Your task to perform on an android device: change text size in settings app Image 0: 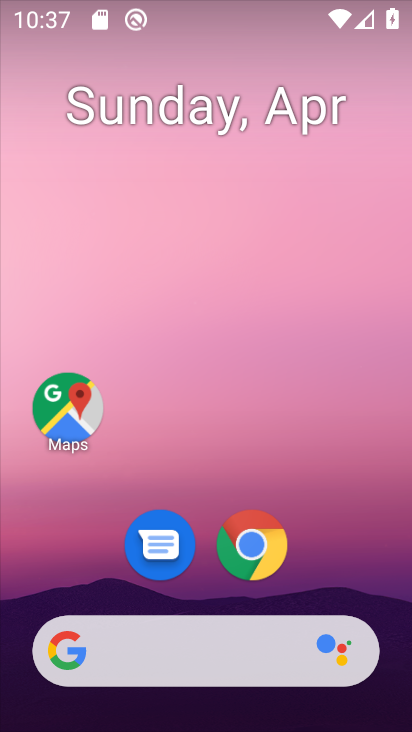
Step 0: drag from (284, 678) to (234, 242)
Your task to perform on an android device: change text size in settings app Image 1: 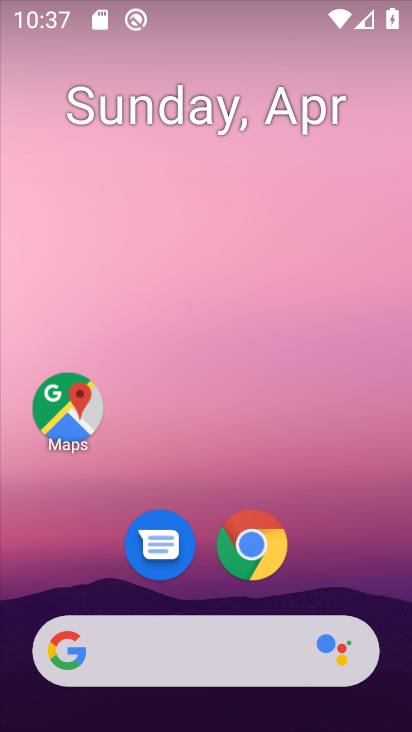
Step 1: drag from (236, 676) to (324, 74)
Your task to perform on an android device: change text size in settings app Image 2: 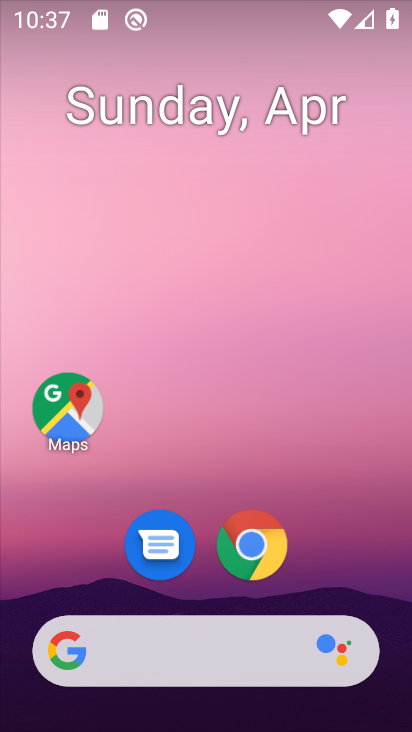
Step 2: drag from (255, 645) to (186, 104)
Your task to perform on an android device: change text size in settings app Image 3: 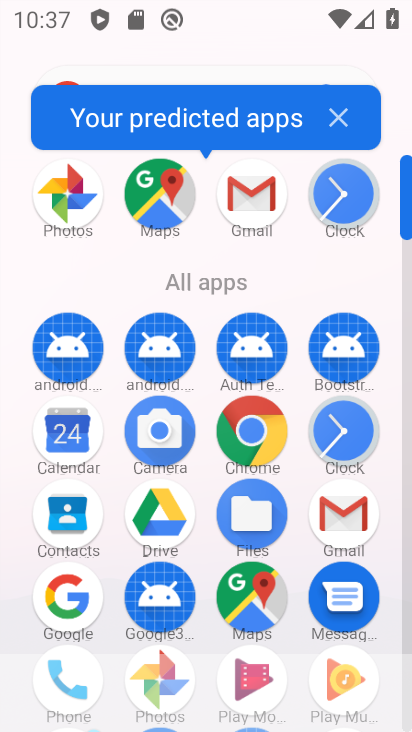
Step 3: drag from (190, 483) to (237, 317)
Your task to perform on an android device: change text size in settings app Image 4: 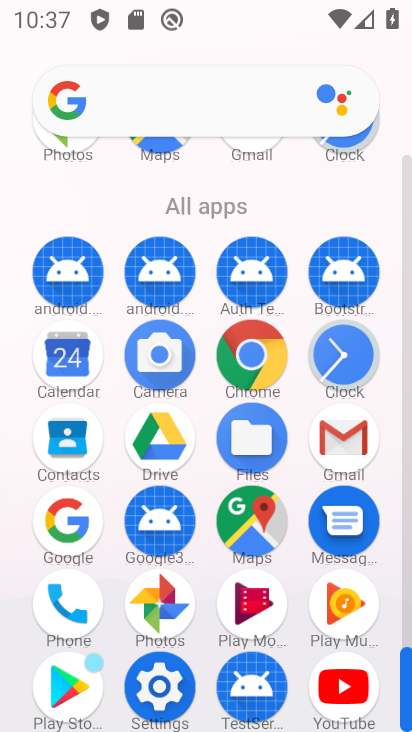
Step 4: click (153, 695)
Your task to perform on an android device: change text size in settings app Image 5: 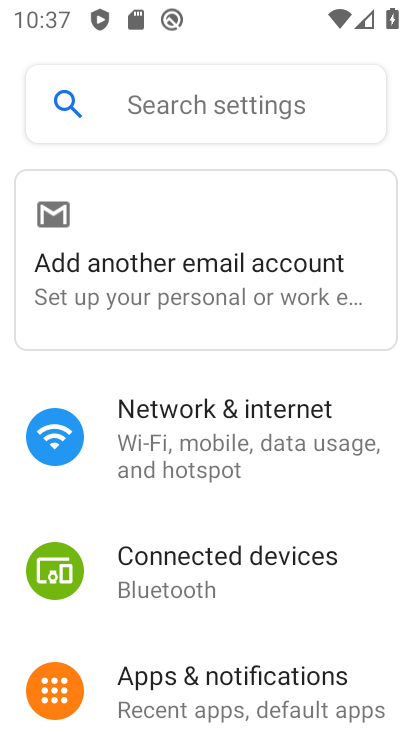
Step 5: click (177, 116)
Your task to perform on an android device: change text size in settings app Image 6: 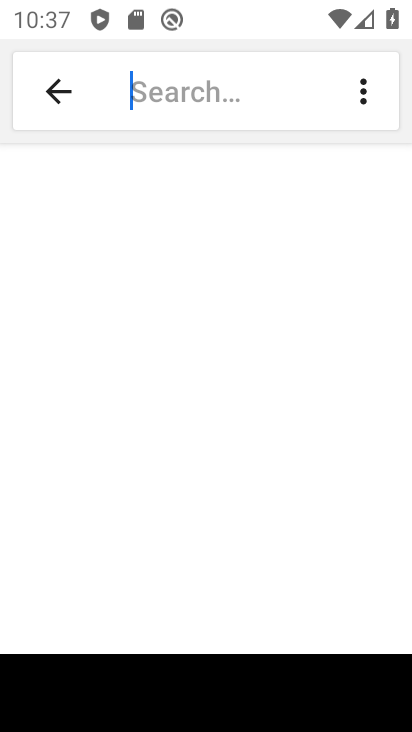
Step 6: drag from (386, 706) to (362, 523)
Your task to perform on an android device: change text size in settings app Image 7: 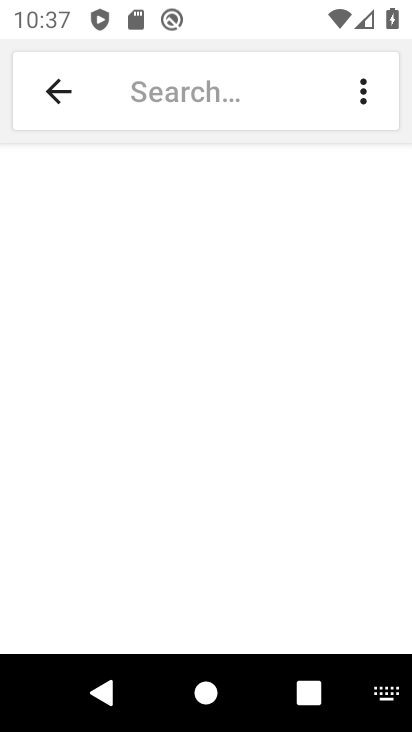
Step 7: click (396, 700)
Your task to perform on an android device: change text size in settings app Image 8: 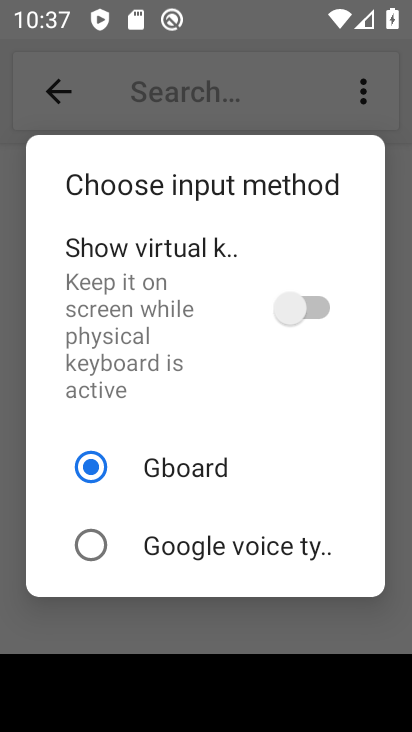
Step 8: click (314, 307)
Your task to perform on an android device: change text size in settings app Image 9: 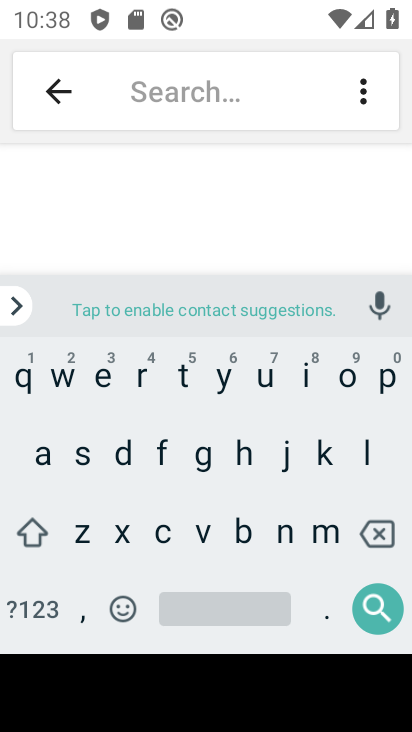
Step 9: click (81, 447)
Your task to perform on an android device: change text size in settings app Image 10: 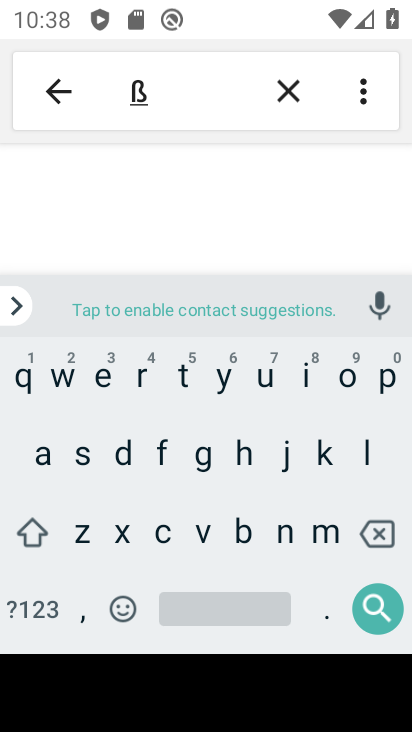
Step 10: click (377, 534)
Your task to perform on an android device: change text size in settings app Image 11: 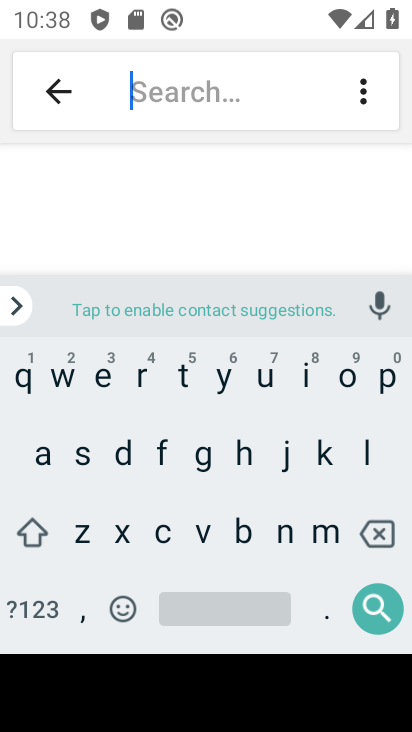
Step 11: click (80, 455)
Your task to perform on an android device: change text size in settings app Image 12: 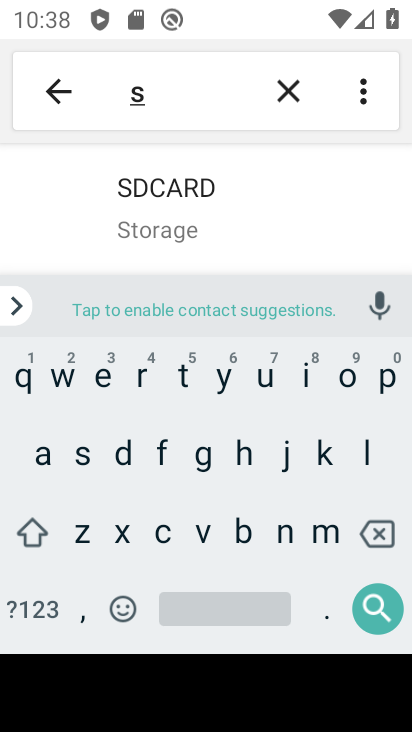
Step 12: click (307, 385)
Your task to perform on an android device: change text size in settings app Image 13: 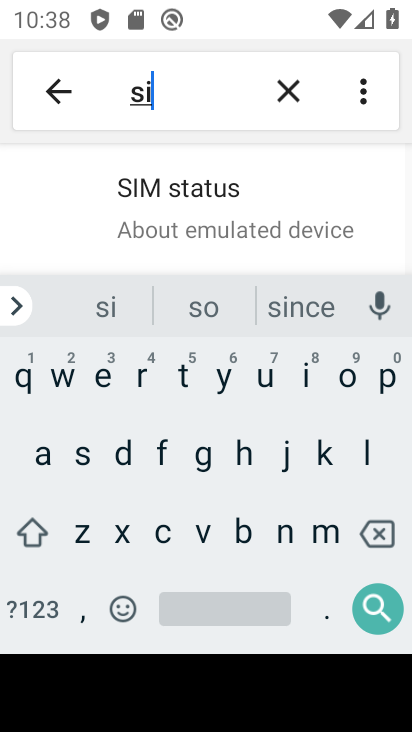
Step 13: click (82, 523)
Your task to perform on an android device: change text size in settings app Image 14: 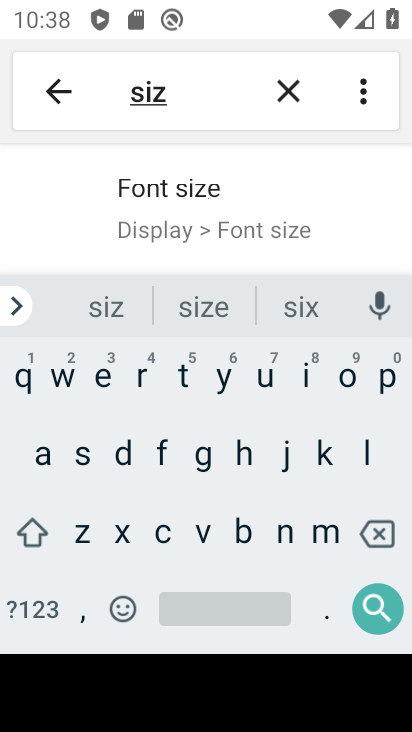
Step 14: click (211, 226)
Your task to perform on an android device: change text size in settings app Image 15: 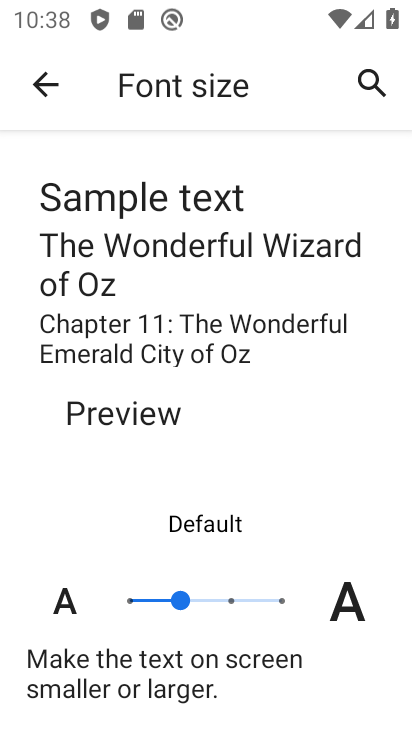
Step 15: click (141, 595)
Your task to perform on an android device: change text size in settings app Image 16: 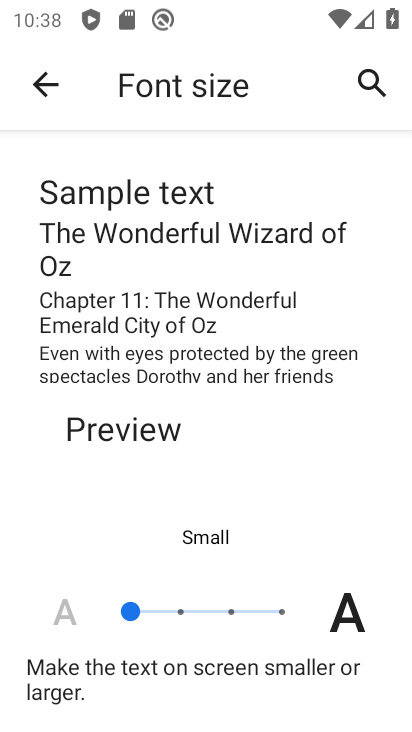
Step 16: task complete